Your task to perform on an android device: Search for Mexican restaurants on Maps Image 0: 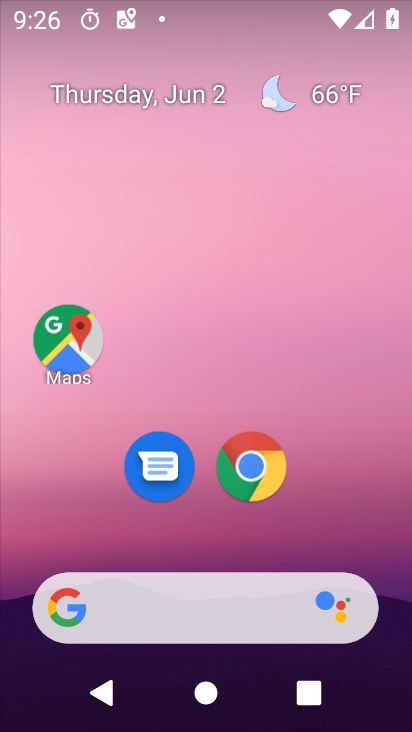
Step 0: click (71, 342)
Your task to perform on an android device: Search for Mexican restaurants on Maps Image 1: 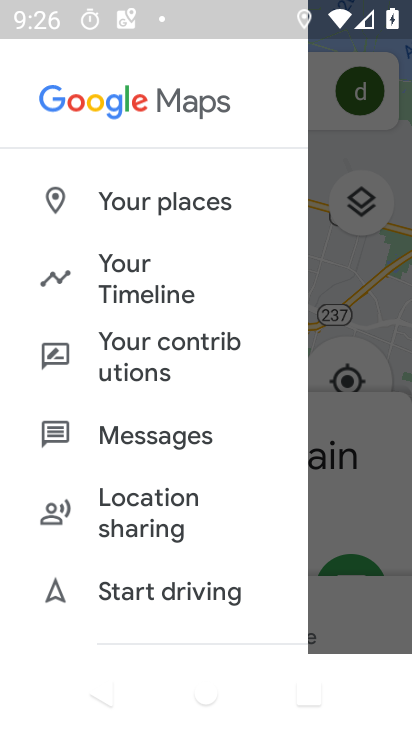
Step 1: click (325, 210)
Your task to perform on an android device: Search for Mexican restaurants on Maps Image 2: 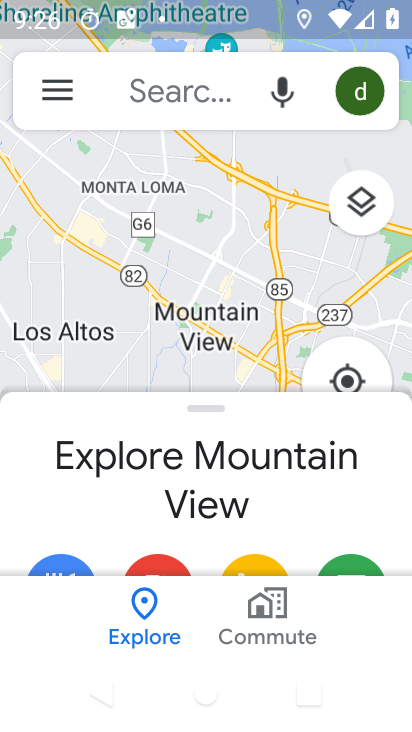
Step 2: click (232, 86)
Your task to perform on an android device: Search for Mexican restaurants on Maps Image 3: 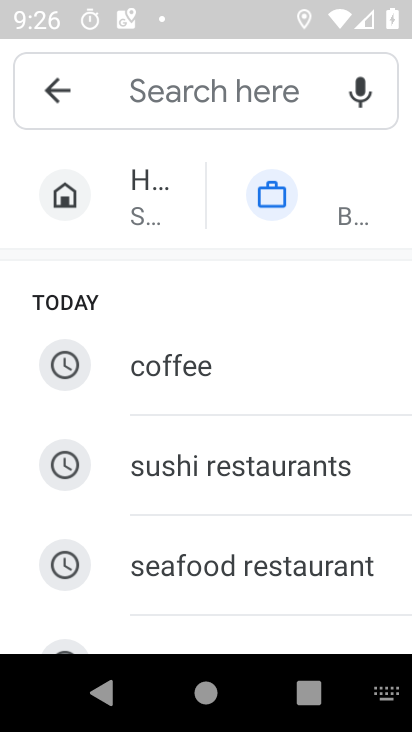
Step 3: drag from (12, 573) to (295, 156)
Your task to perform on an android device: Search for Mexican restaurants on Maps Image 4: 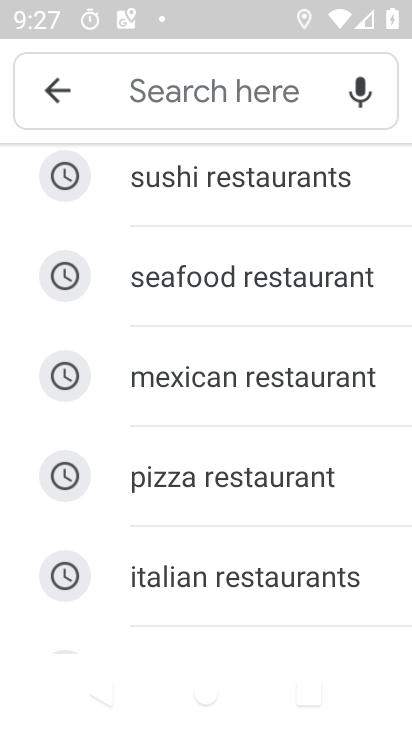
Step 4: click (171, 376)
Your task to perform on an android device: Search for Mexican restaurants on Maps Image 5: 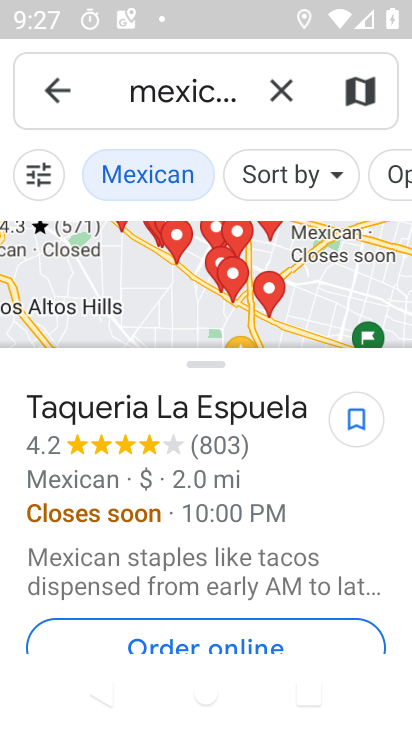
Step 5: task complete